Your task to perform on an android device: delete a single message in the gmail app Image 0: 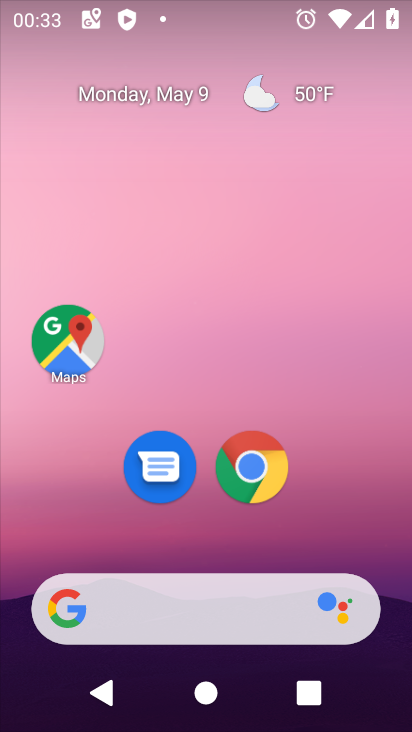
Step 0: press home button
Your task to perform on an android device: delete a single message in the gmail app Image 1: 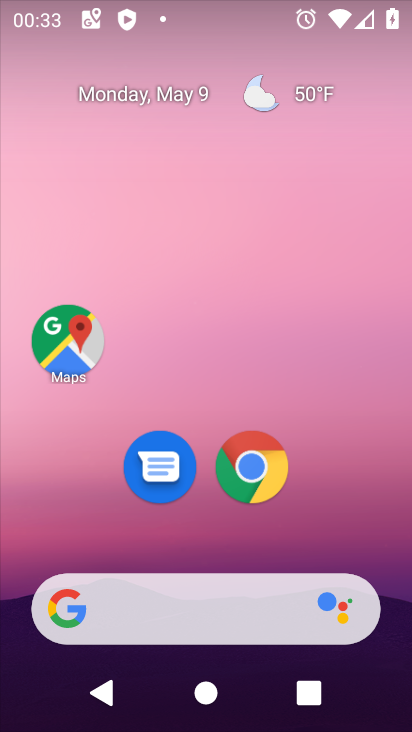
Step 1: drag from (201, 552) to (260, 130)
Your task to perform on an android device: delete a single message in the gmail app Image 2: 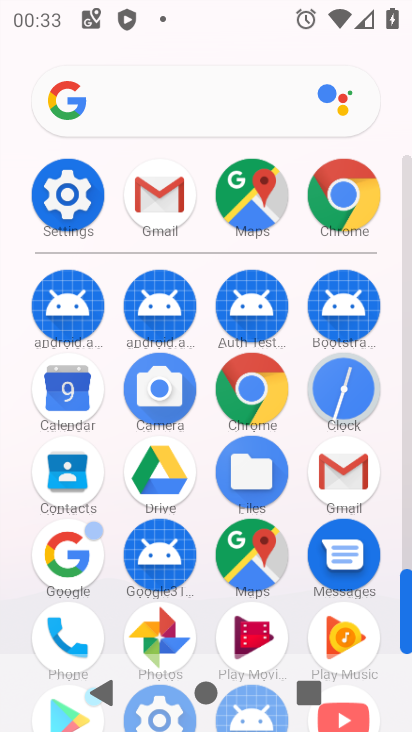
Step 2: click (333, 468)
Your task to perform on an android device: delete a single message in the gmail app Image 3: 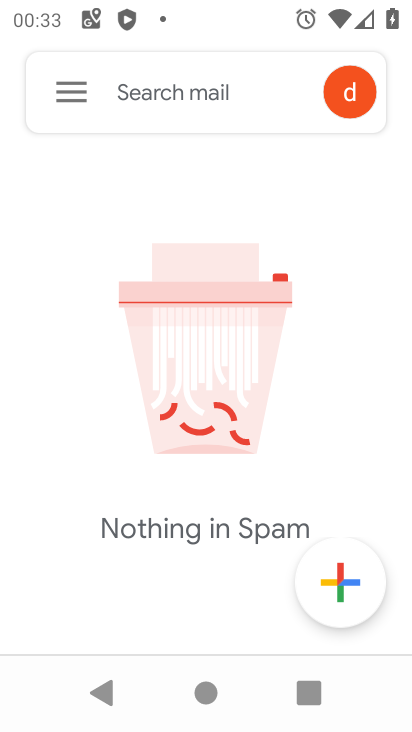
Step 3: task complete